Your task to perform on an android device: Go to eBay Image 0: 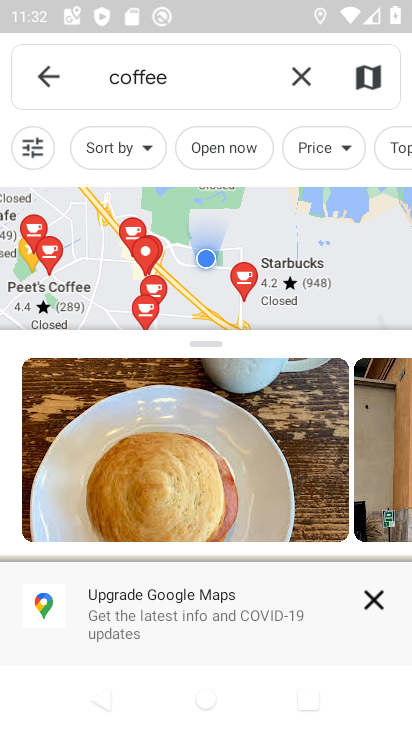
Step 0: press home button
Your task to perform on an android device: Go to eBay Image 1: 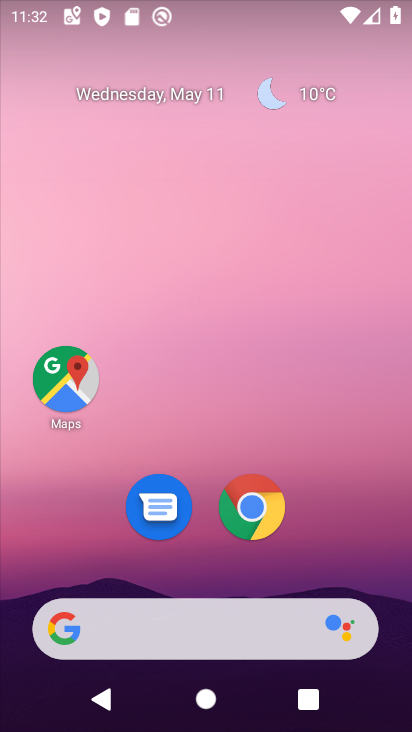
Step 1: click (252, 514)
Your task to perform on an android device: Go to eBay Image 2: 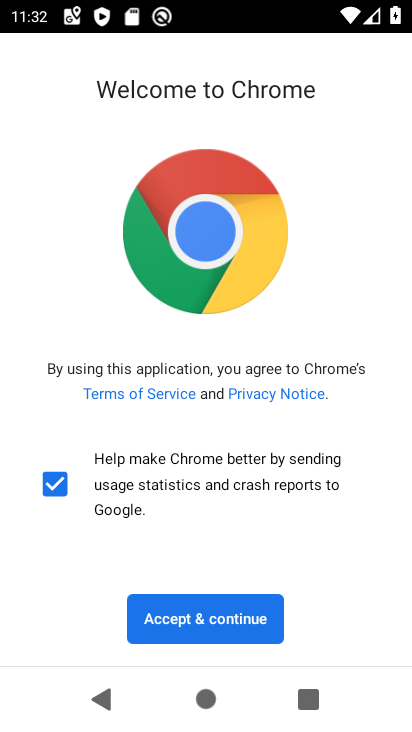
Step 2: click (214, 620)
Your task to perform on an android device: Go to eBay Image 3: 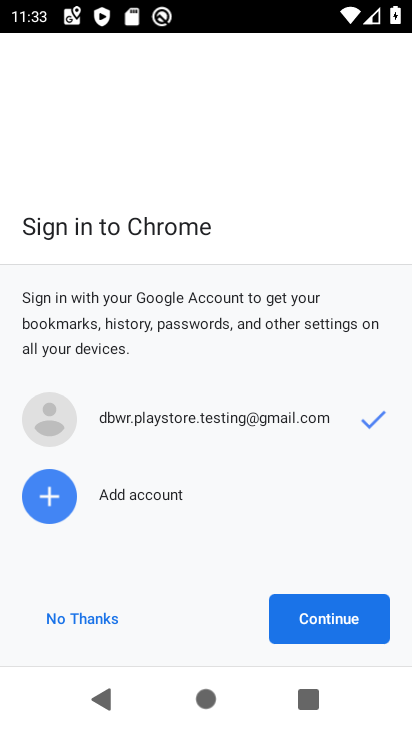
Step 3: click (306, 644)
Your task to perform on an android device: Go to eBay Image 4: 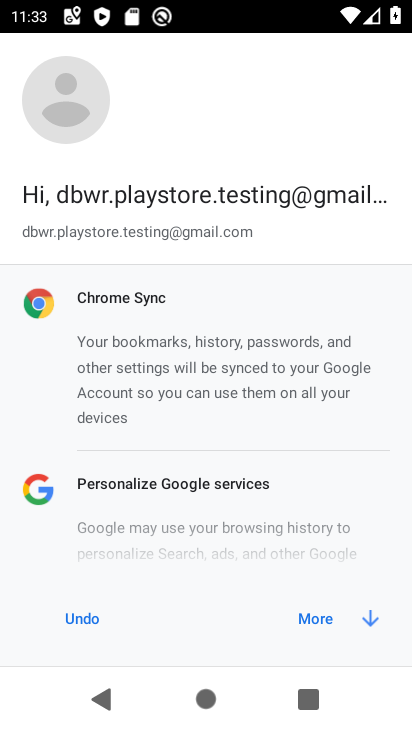
Step 4: click (323, 620)
Your task to perform on an android device: Go to eBay Image 5: 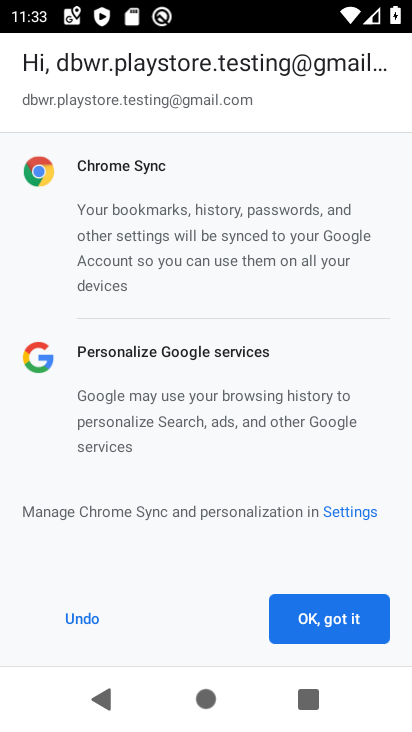
Step 5: click (323, 620)
Your task to perform on an android device: Go to eBay Image 6: 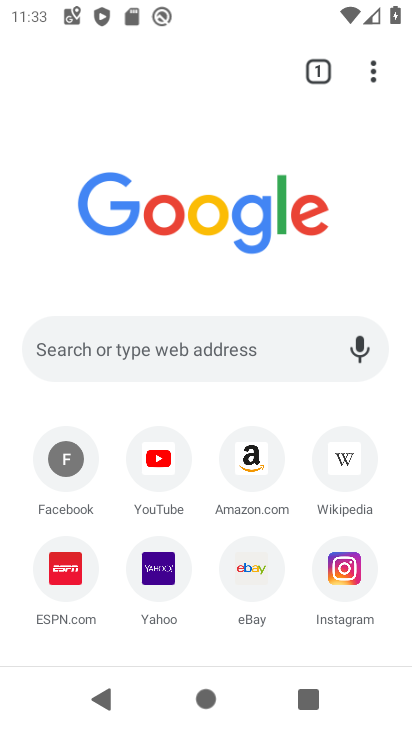
Step 6: click (241, 569)
Your task to perform on an android device: Go to eBay Image 7: 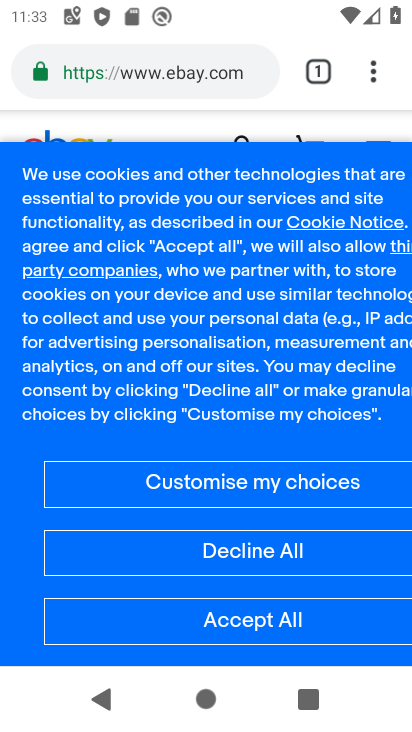
Step 7: task complete